Your task to perform on an android device: open app "Nova Launcher" Image 0: 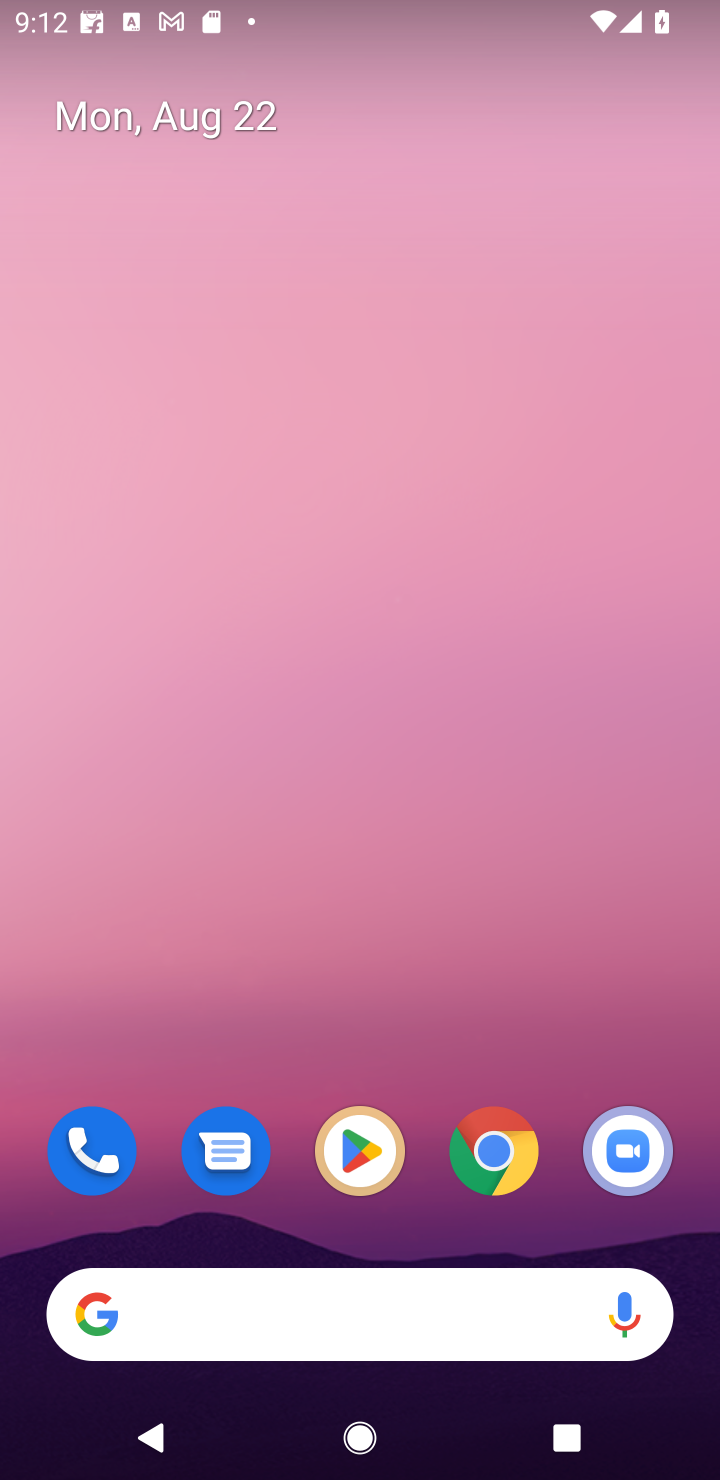
Step 0: press home button
Your task to perform on an android device: open app "Nova Launcher" Image 1: 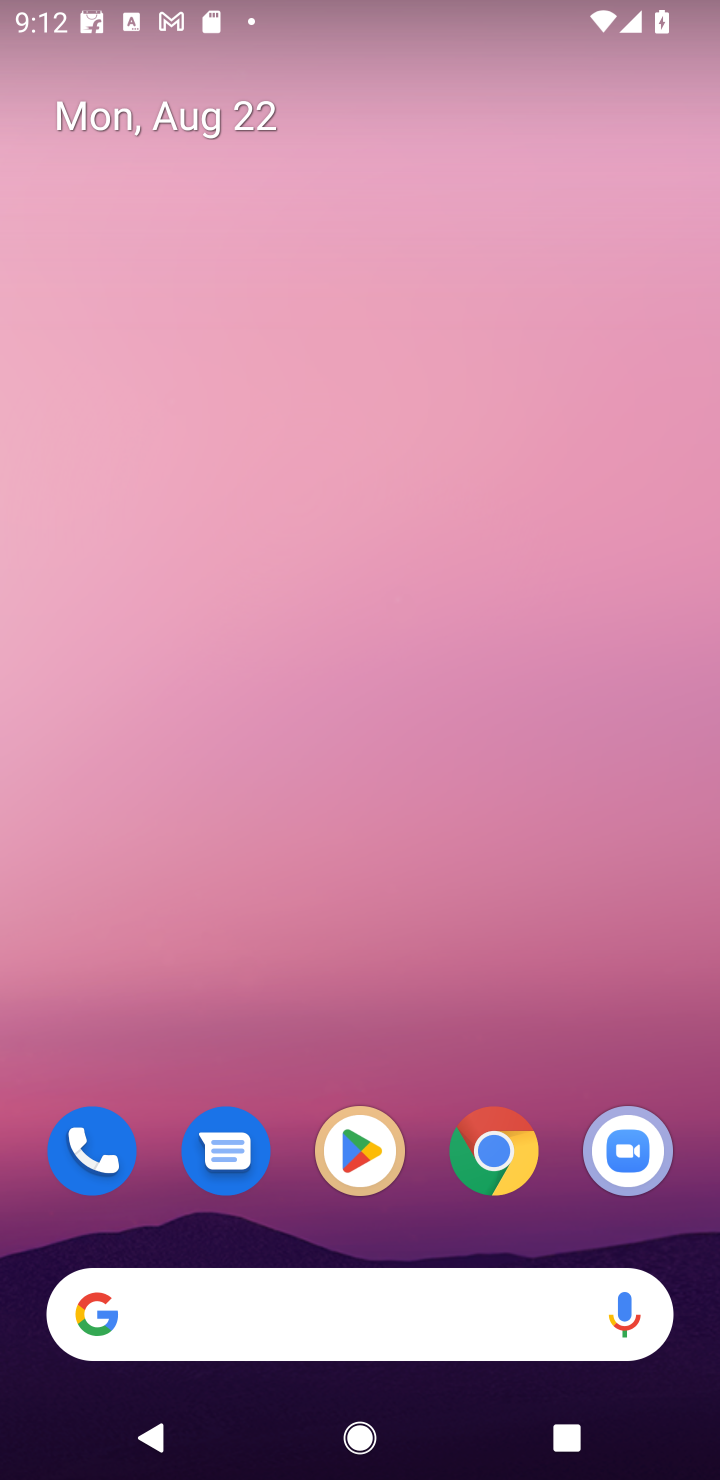
Step 1: click (346, 1149)
Your task to perform on an android device: open app "Nova Launcher" Image 2: 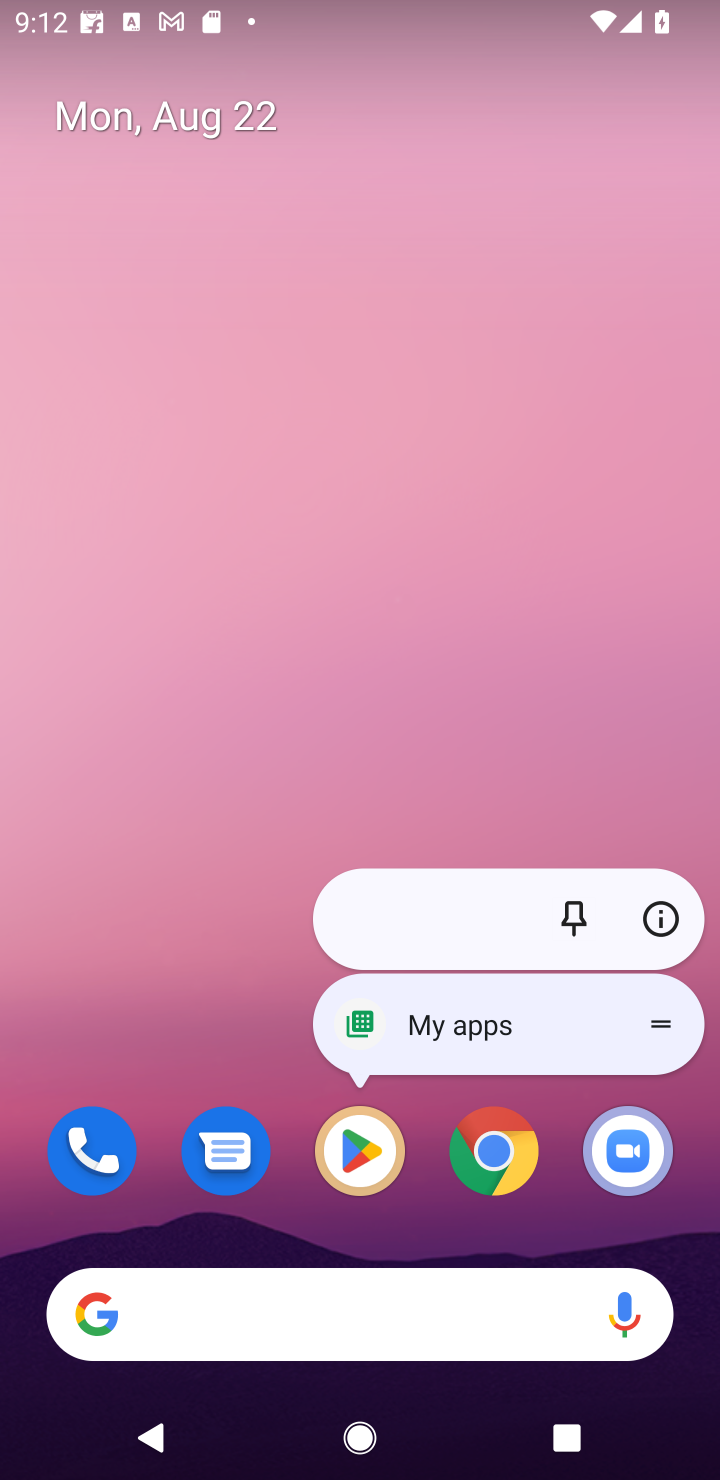
Step 2: click (346, 1147)
Your task to perform on an android device: open app "Nova Launcher" Image 3: 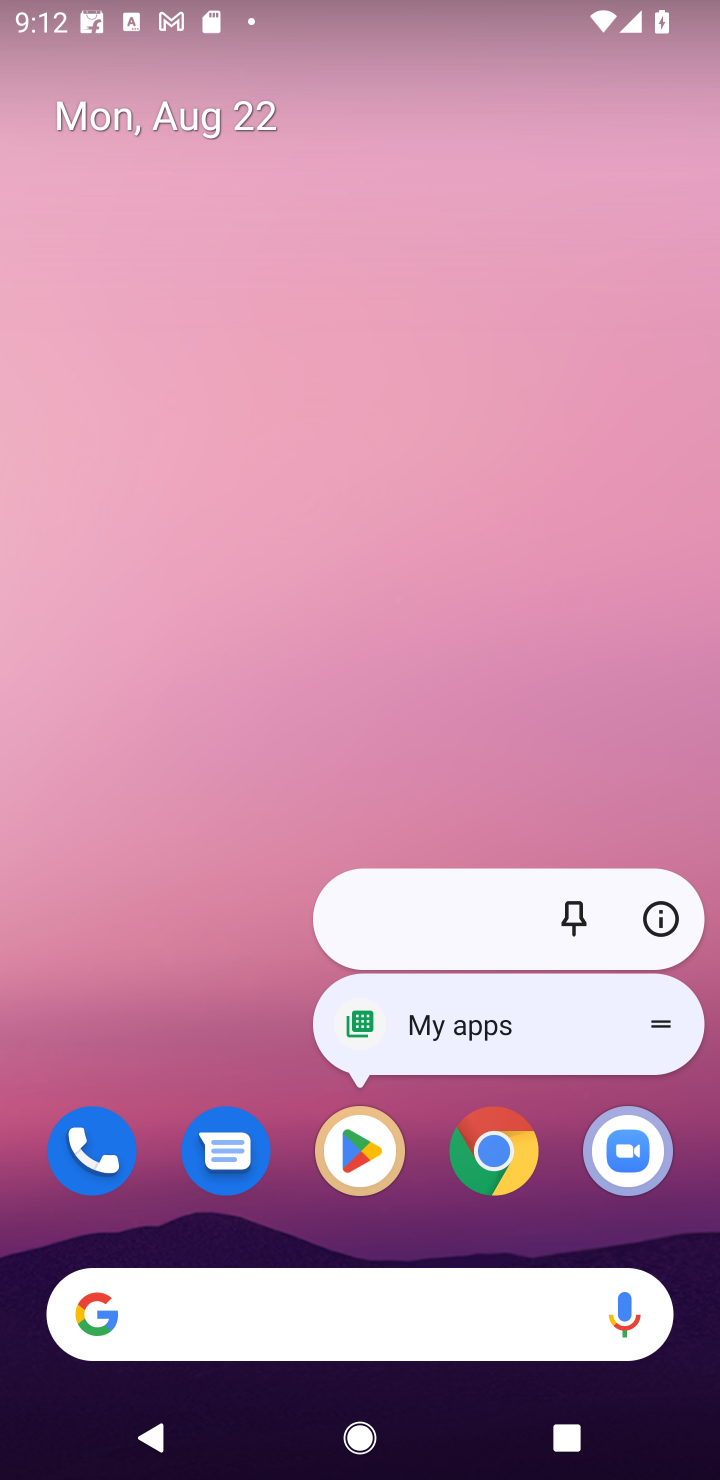
Step 3: click (345, 1171)
Your task to perform on an android device: open app "Nova Launcher" Image 4: 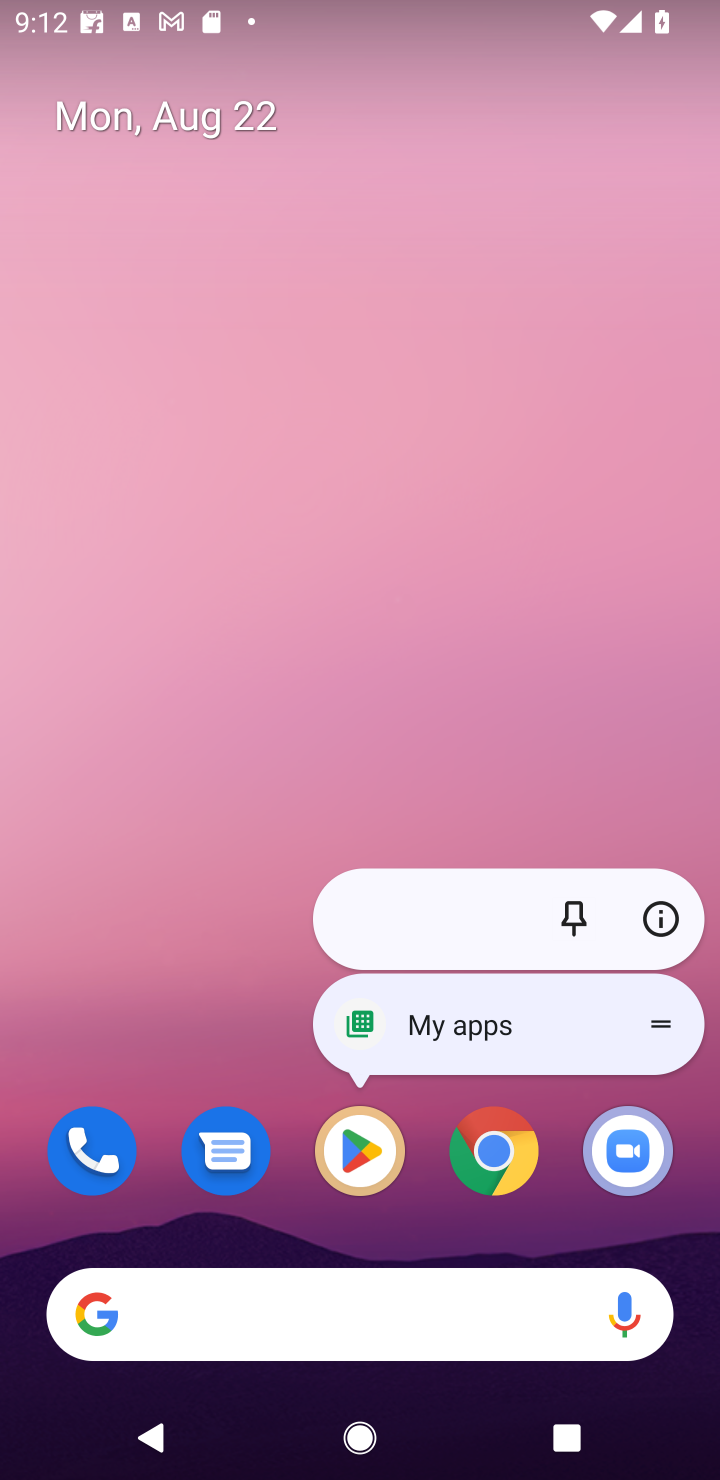
Step 4: click (345, 1177)
Your task to perform on an android device: open app "Nova Launcher" Image 5: 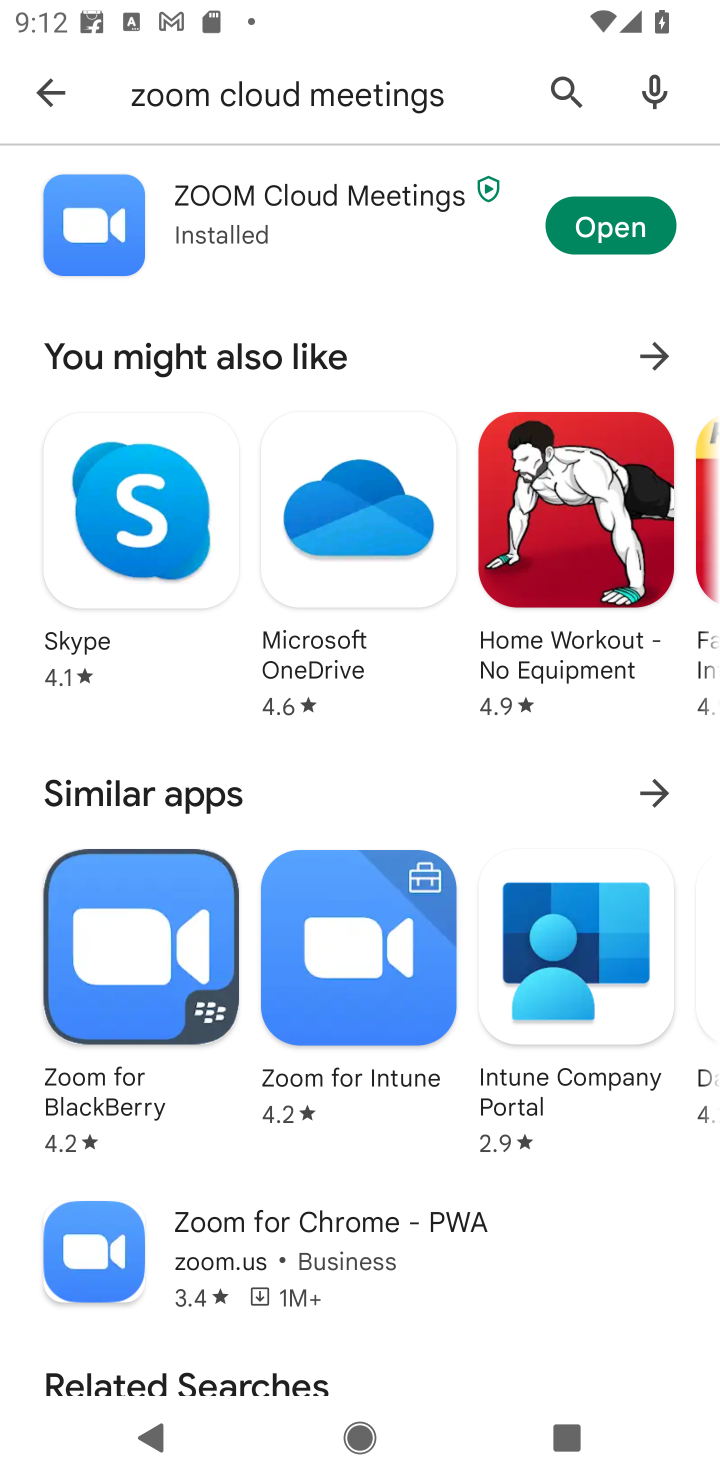
Step 5: click (553, 83)
Your task to perform on an android device: open app "Nova Launcher" Image 6: 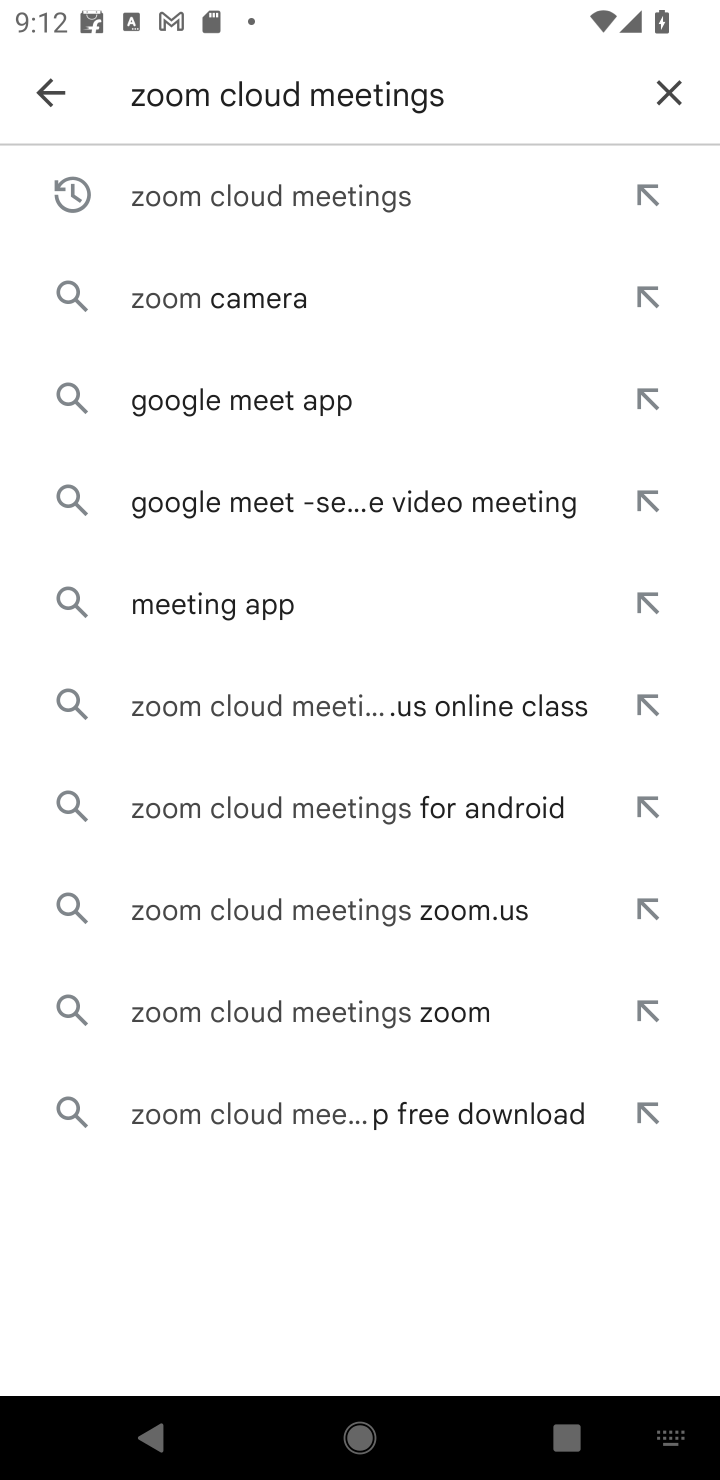
Step 6: click (670, 89)
Your task to perform on an android device: open app "Nova Launcher" Image 7: 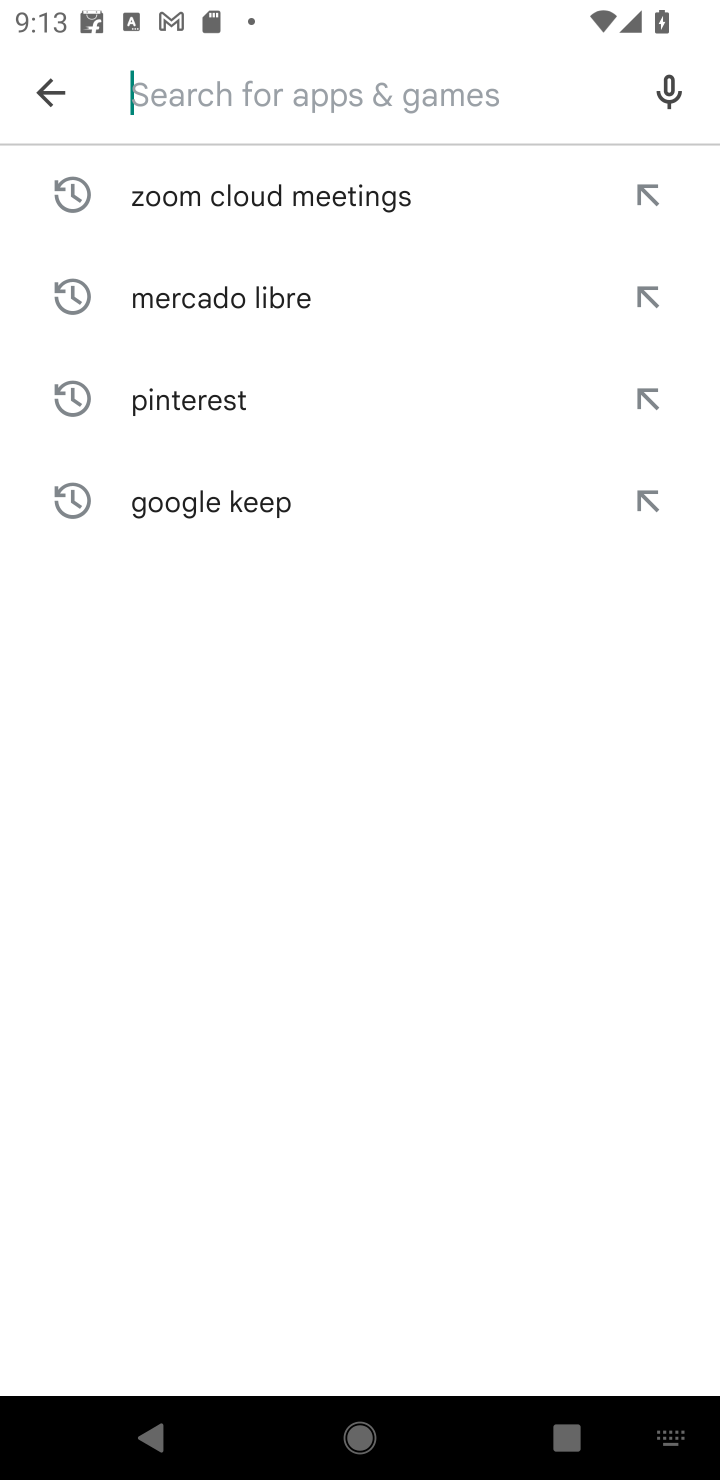
Step 7: type "Nova Launcher"
Your task to perform on an android device: open app "Nova Launcher" Image 8: 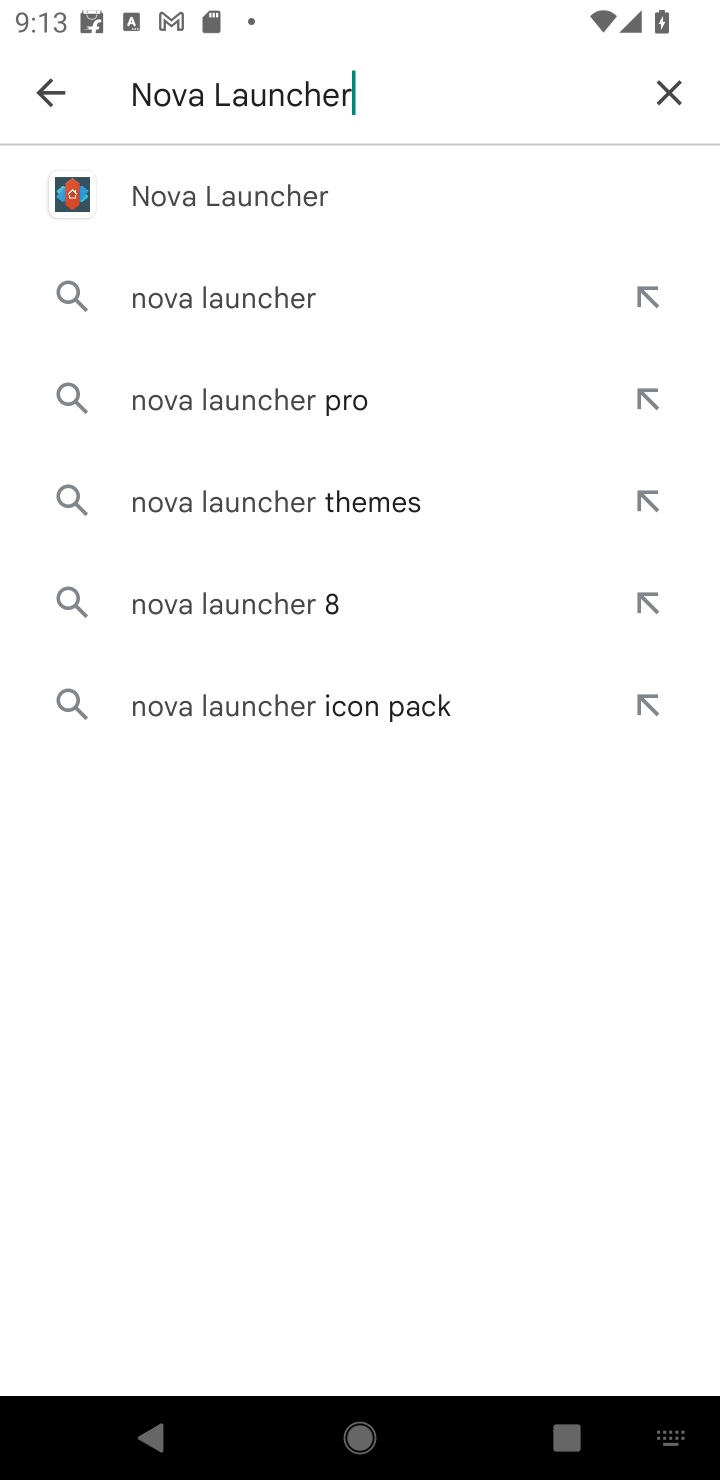
Step 8: click (298, 198)
Your task to perform on an android device: open app "Nova Launcher" Image 9: 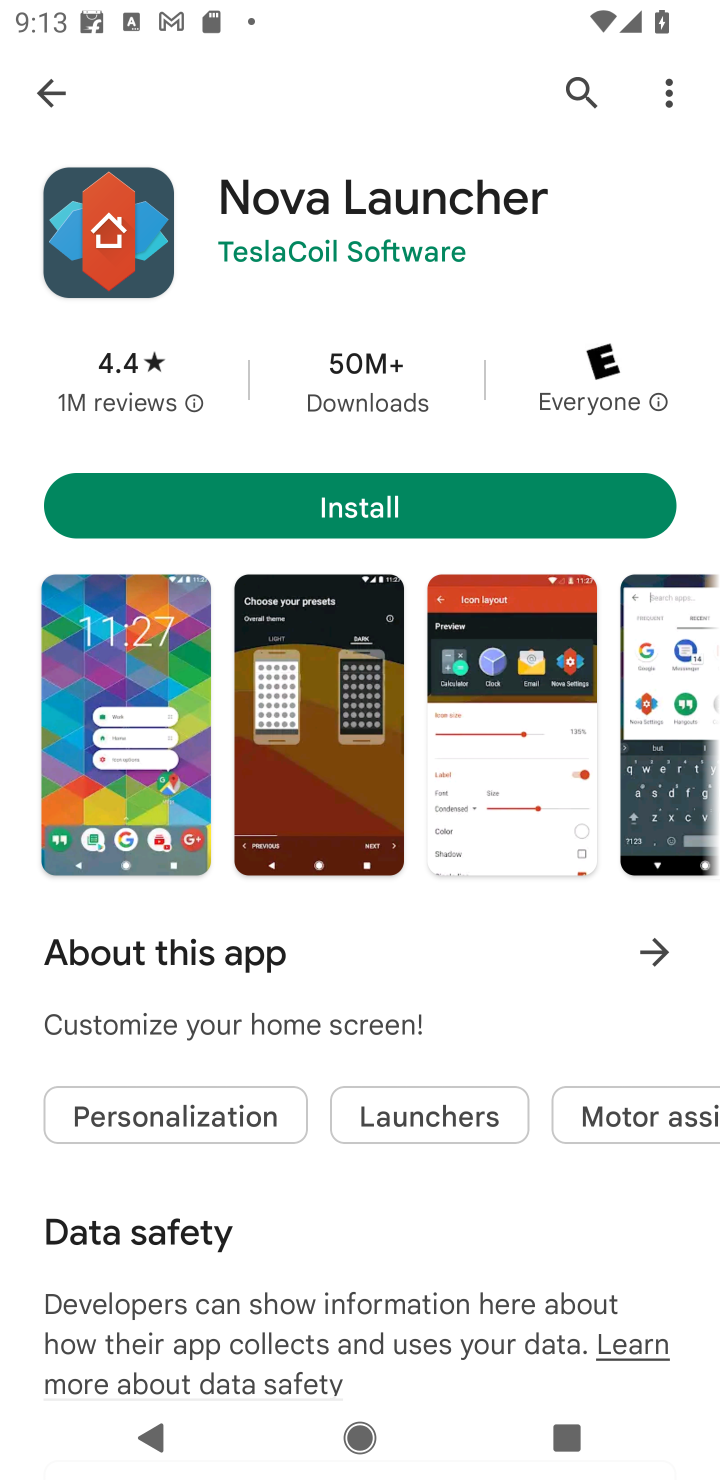
Step 9: task complete